Your task to perform on an android device: set an alarm Image 0: 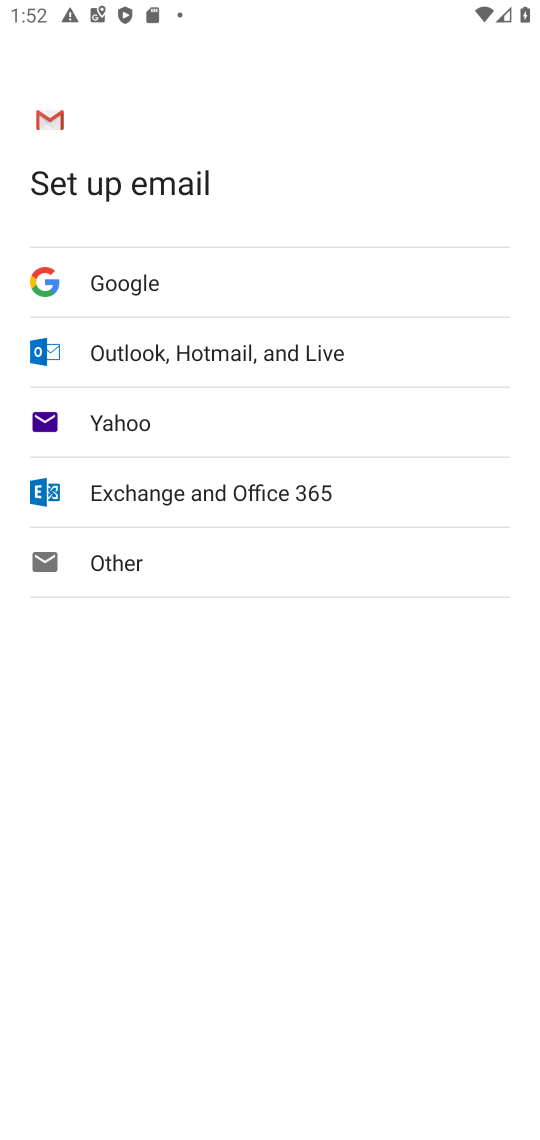
Step 0: press home button
Your task to perform on an android device: set an alarm Image 1: 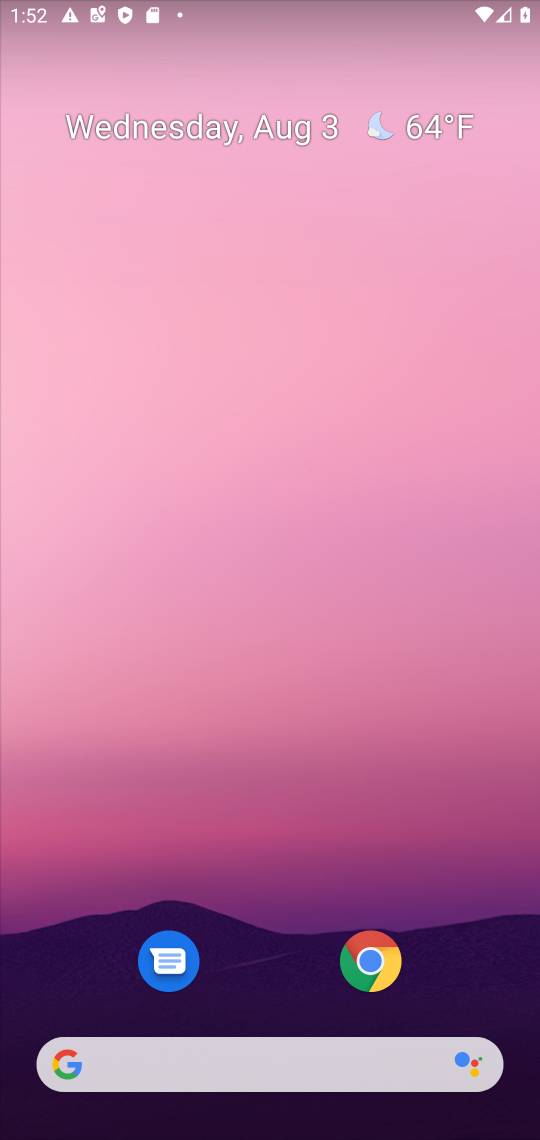
Step 1: drag from (267, 851) to (243, 31)
Your task to perform on an android device: set an alarm Image 2: 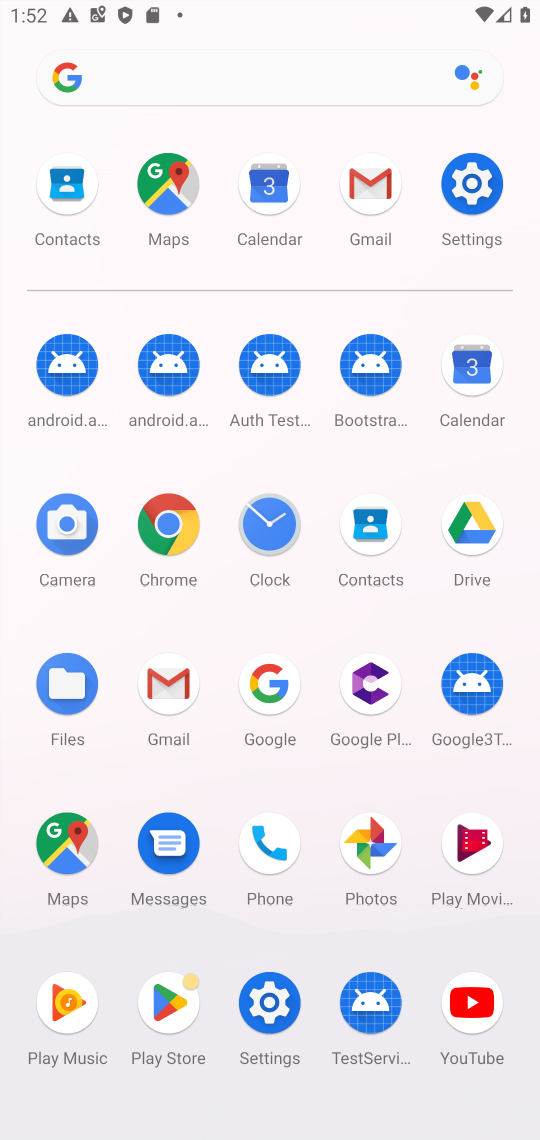
Step 2: click (263, 534)
Your task to perform on an android device: set an alarm Image 3: 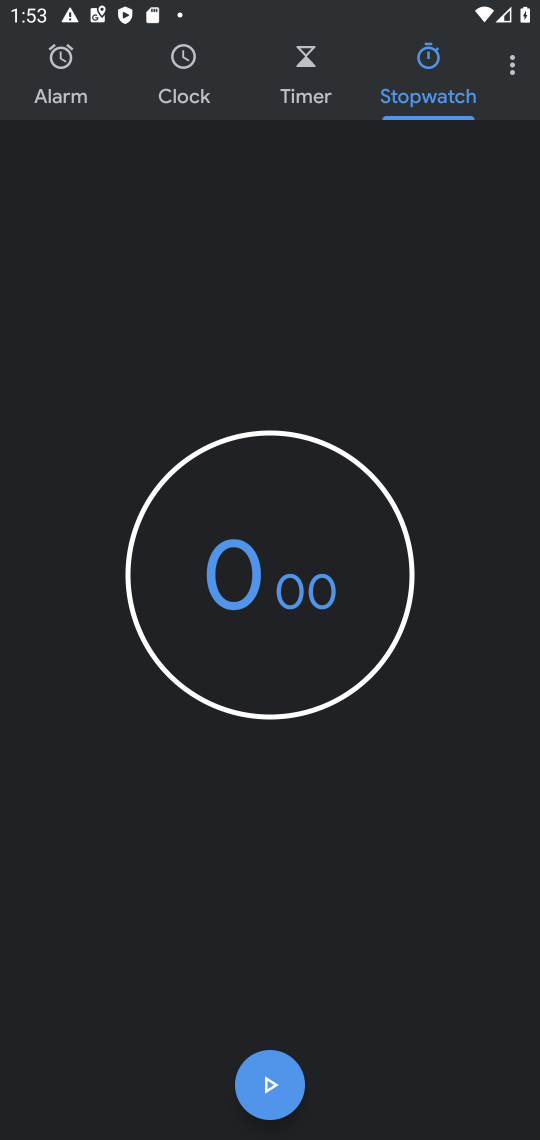
Step 3: click (64, 76)
Your task to perform on an android device: set an alarm Image 4: 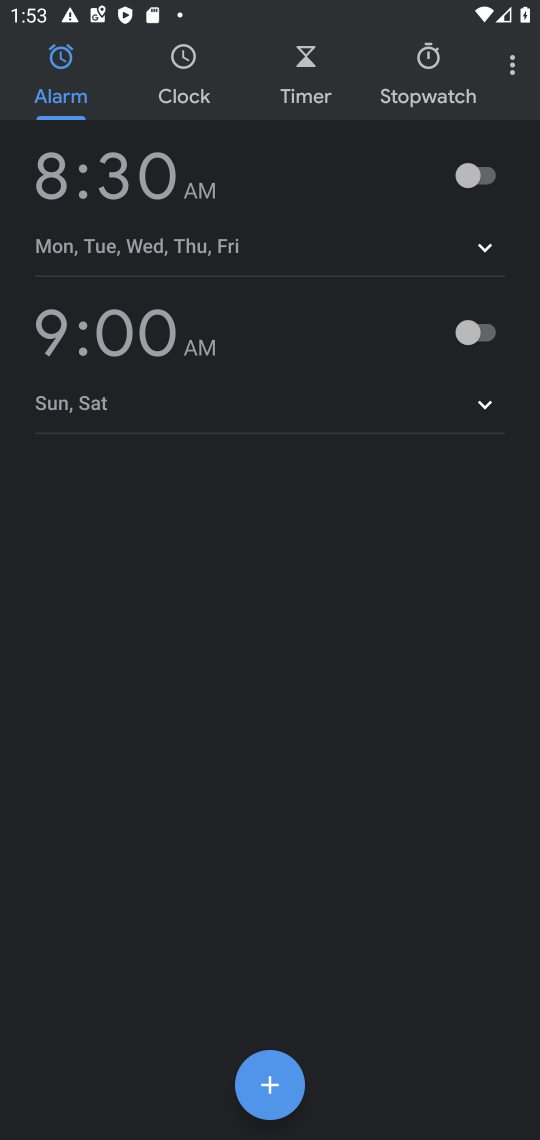
Step 4: click (259, 1082)
Your task to perform on an android device: set an alarm Image 5: 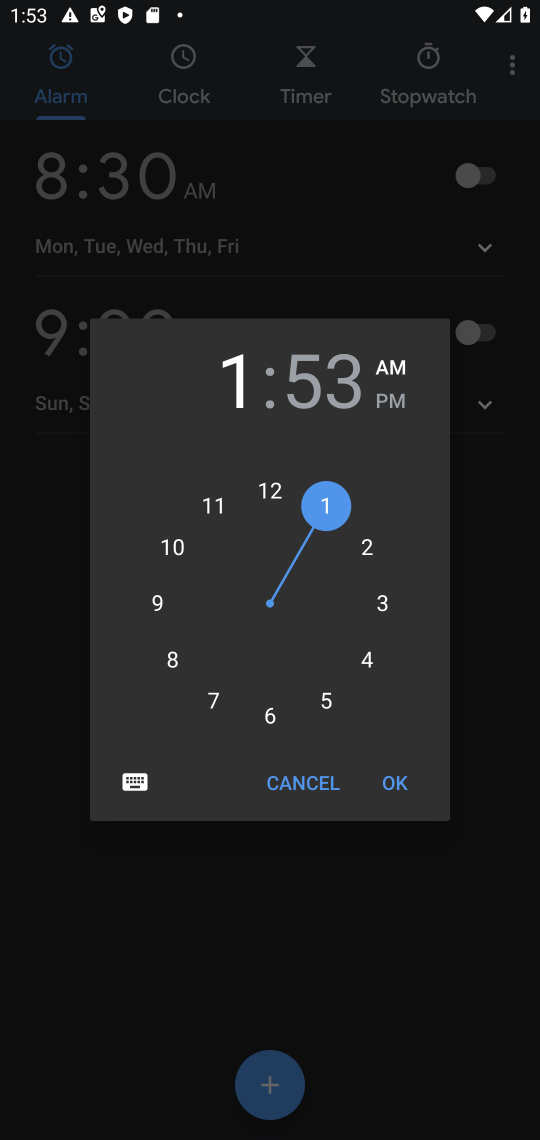
Step 5: click (361, 666)
Your task to perform on an android device: set an alarm Image 6: 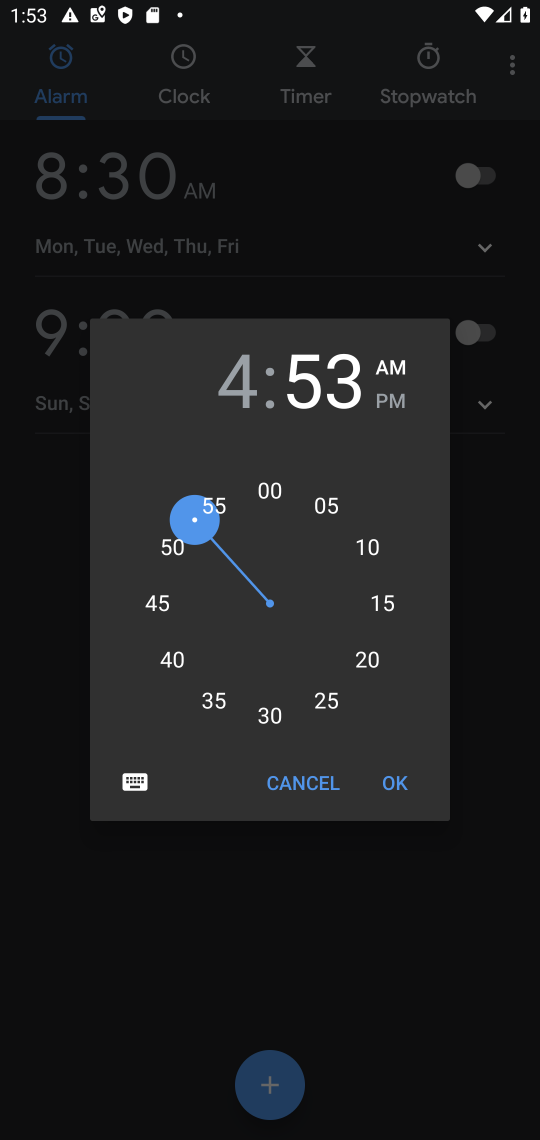
Step 6: click (272, 727)
Your task to perform on an android device: set an alarm Image 7: 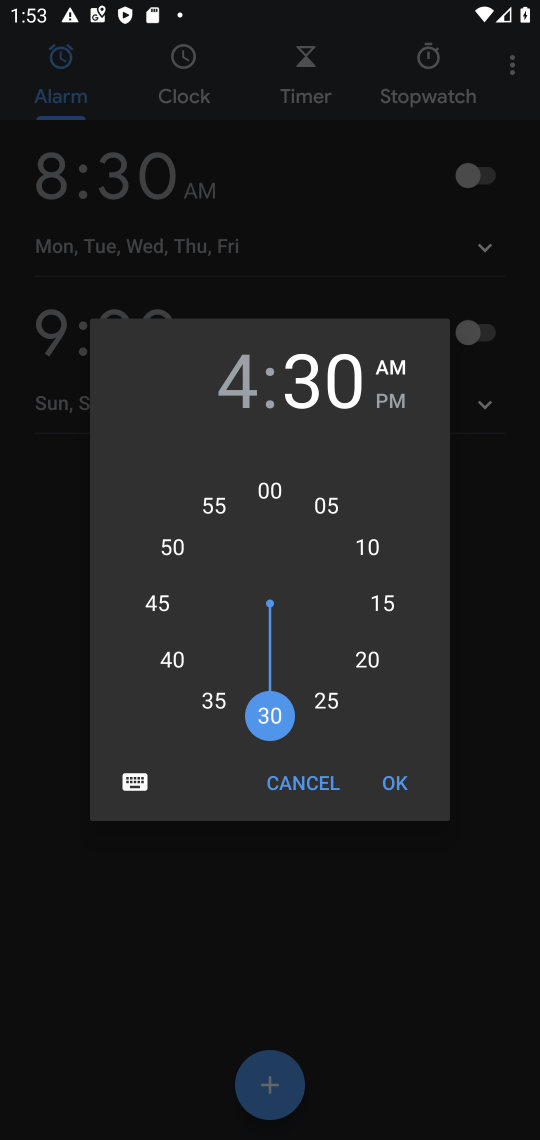
Step 7: click (410, 794)
Your task to perform on an android device: set an alarm Image 8: 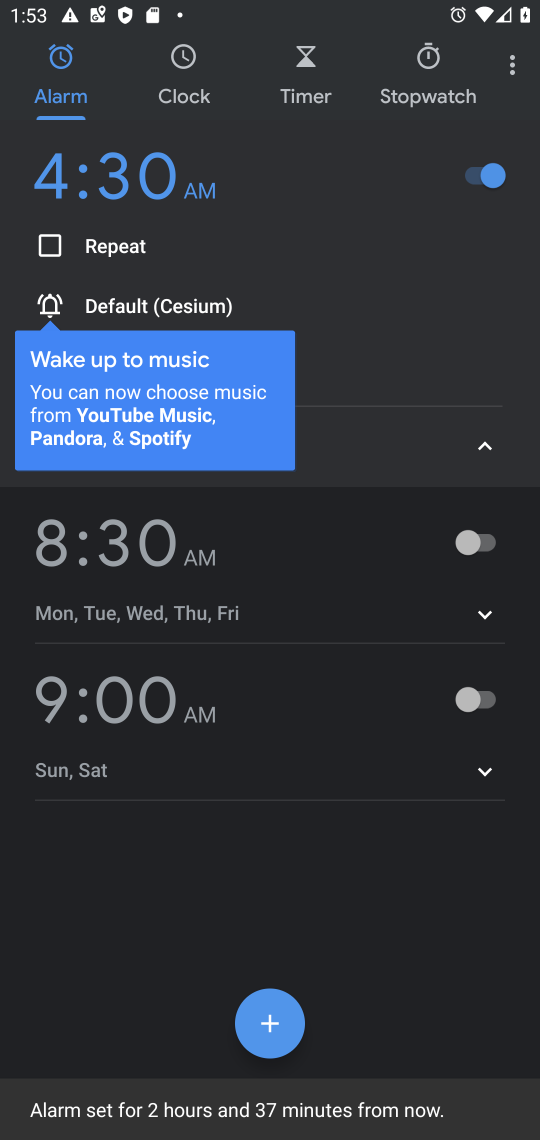
Step 8: task complete